Your task to perform on an android device: Open calendar and show me the third week of next month Image 0: 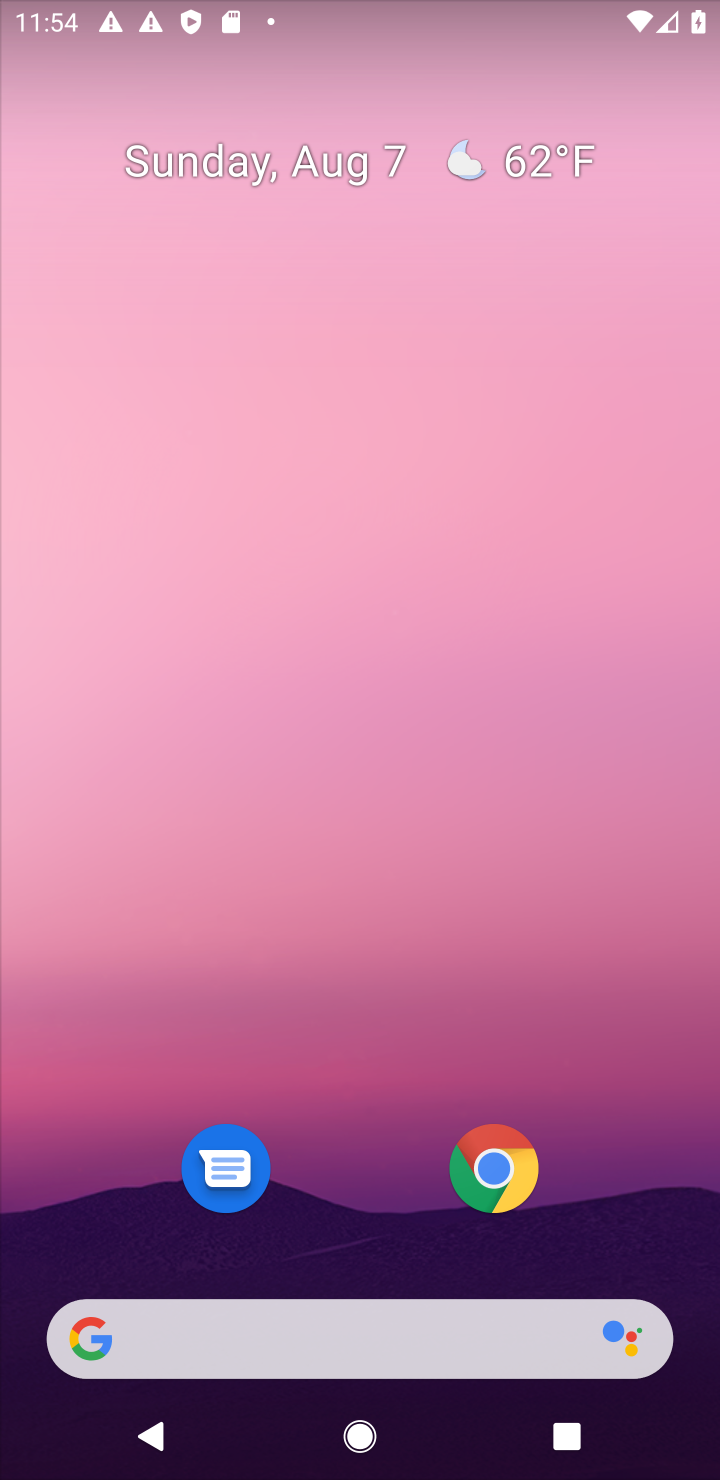
Step 0: drag from (314, 402) to (302, 157)
Your task to perform on an android device: Open calendar and show me the third week of next month Image 1: 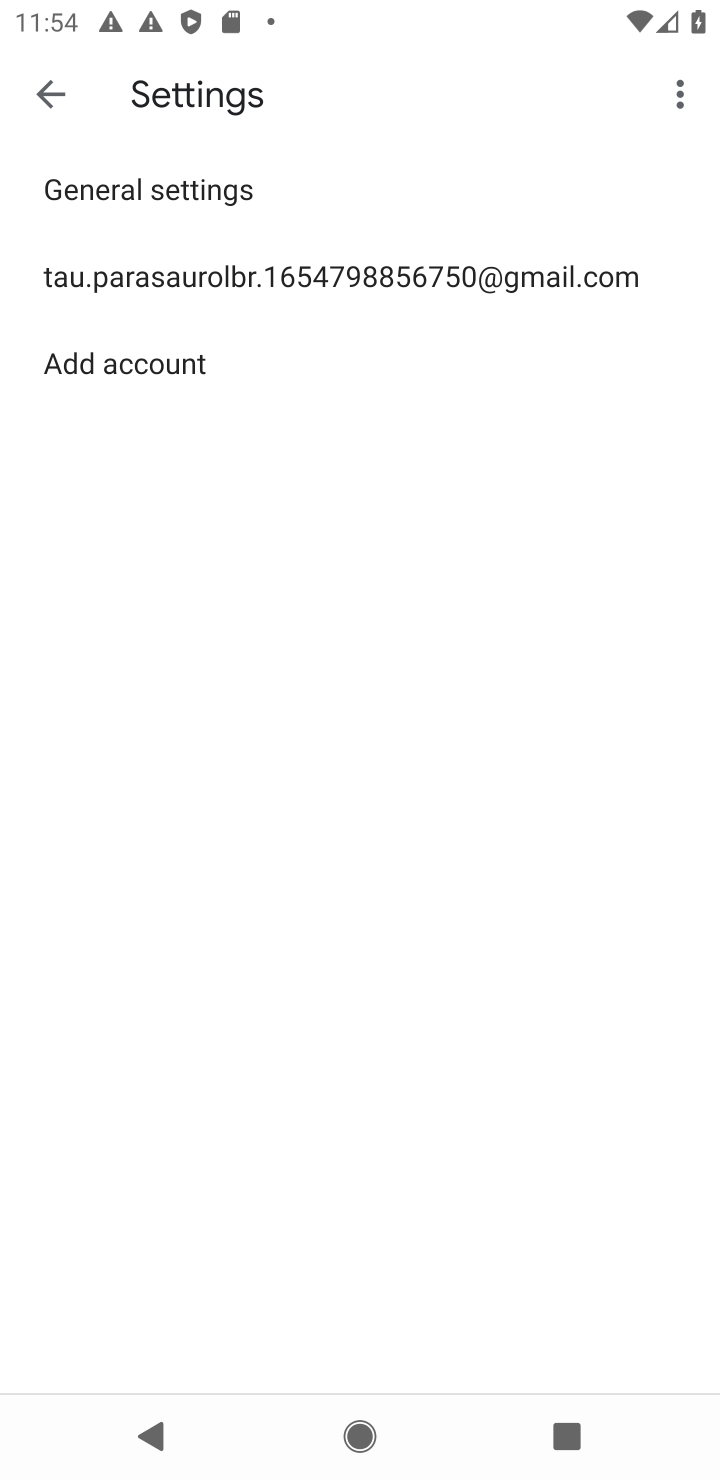
Step 1: press home button
Your task to perform on an android device: Open calendar and show me the third week of next month Image 2: 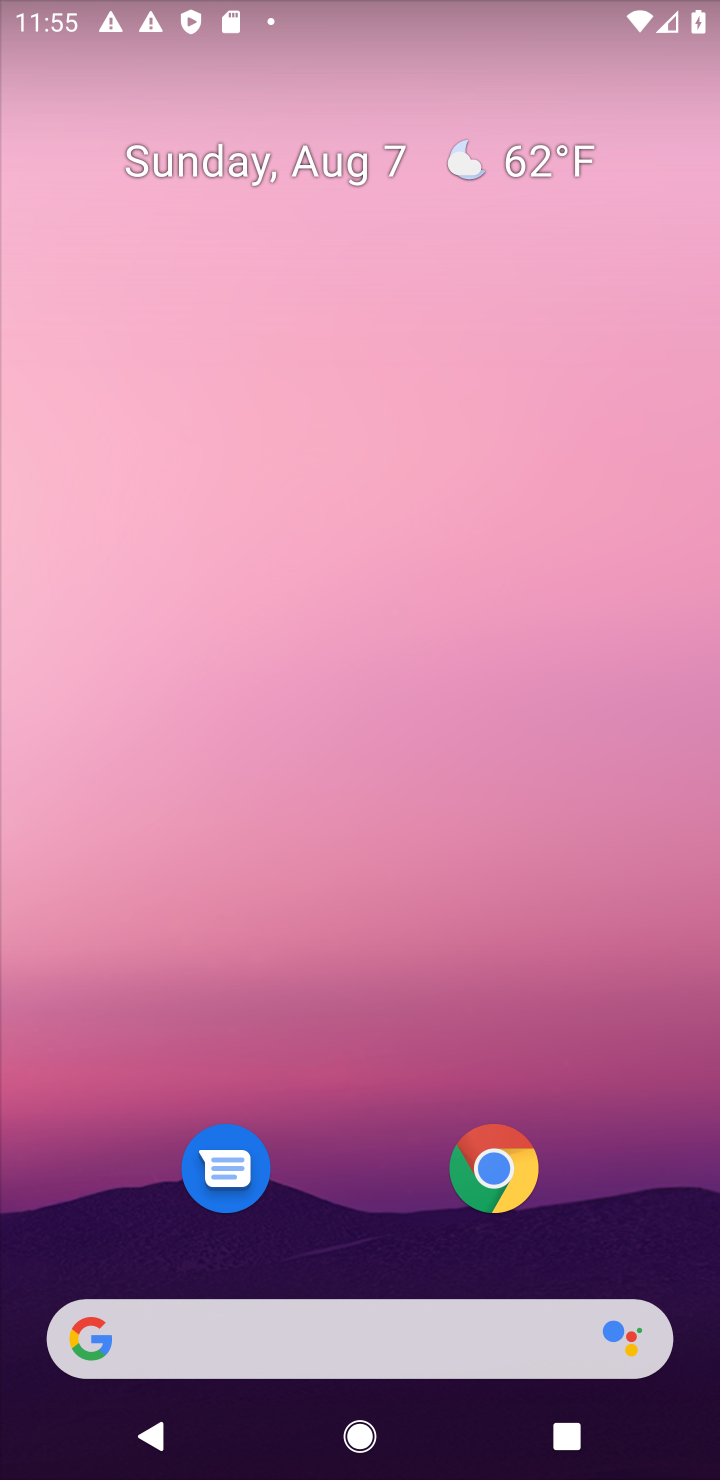
Step 2: drag from (338, 1259) to (227, 58)
Your task to perform on an android device: Open calendar and show me the third week of next month Image 3: 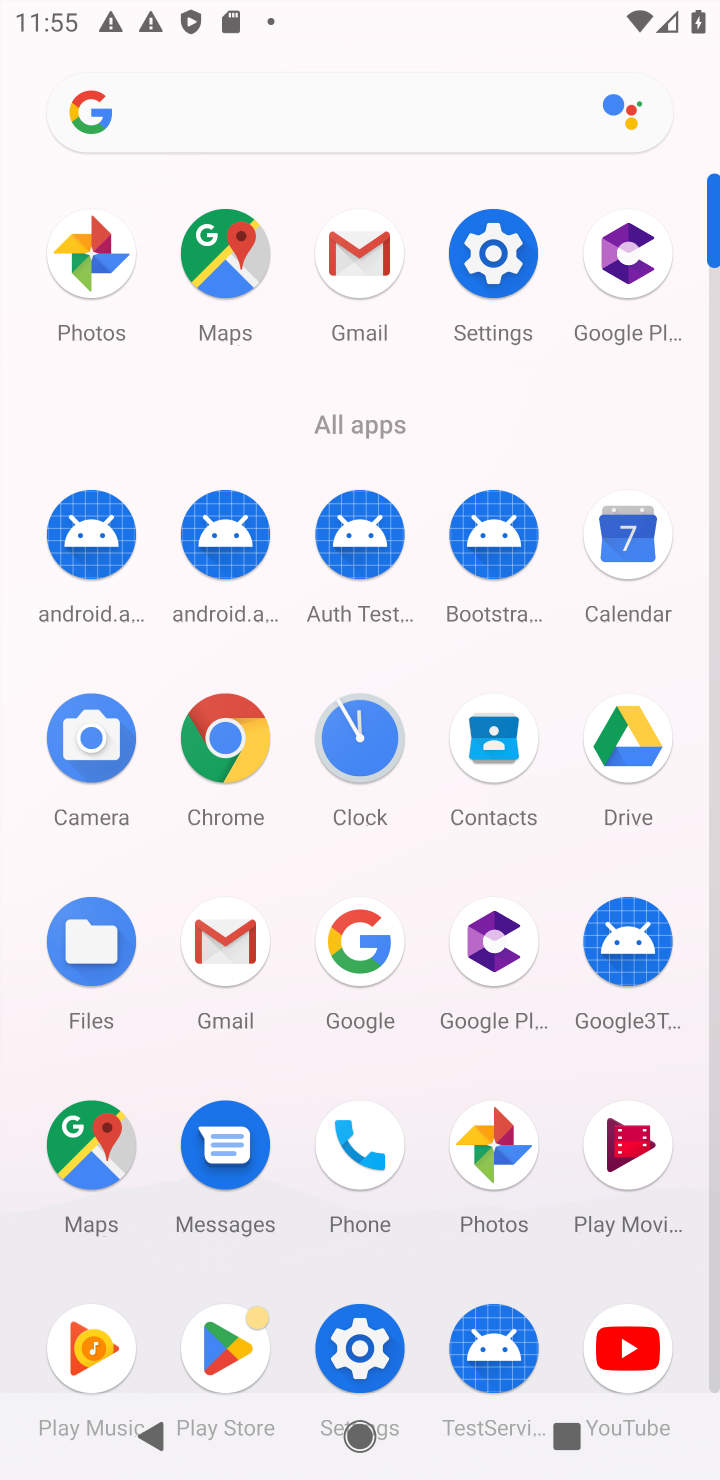
Step 3: click (617, 532)
Your task to perform on an android device: Open calendar and show me the third week of next month Image 4: 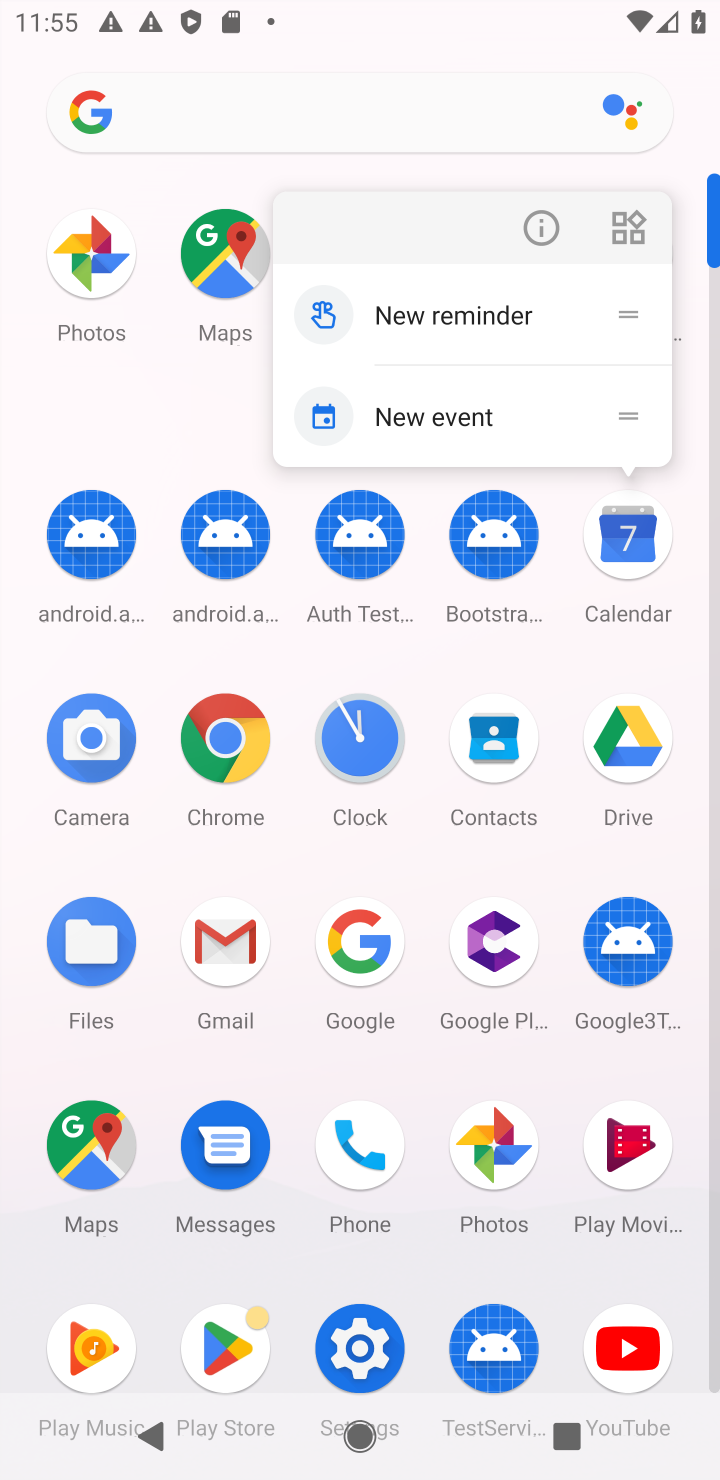
Step 4: click (630, 529)
Your task to perform on an android device: Open calendar and show me the third week of next month Image 5: 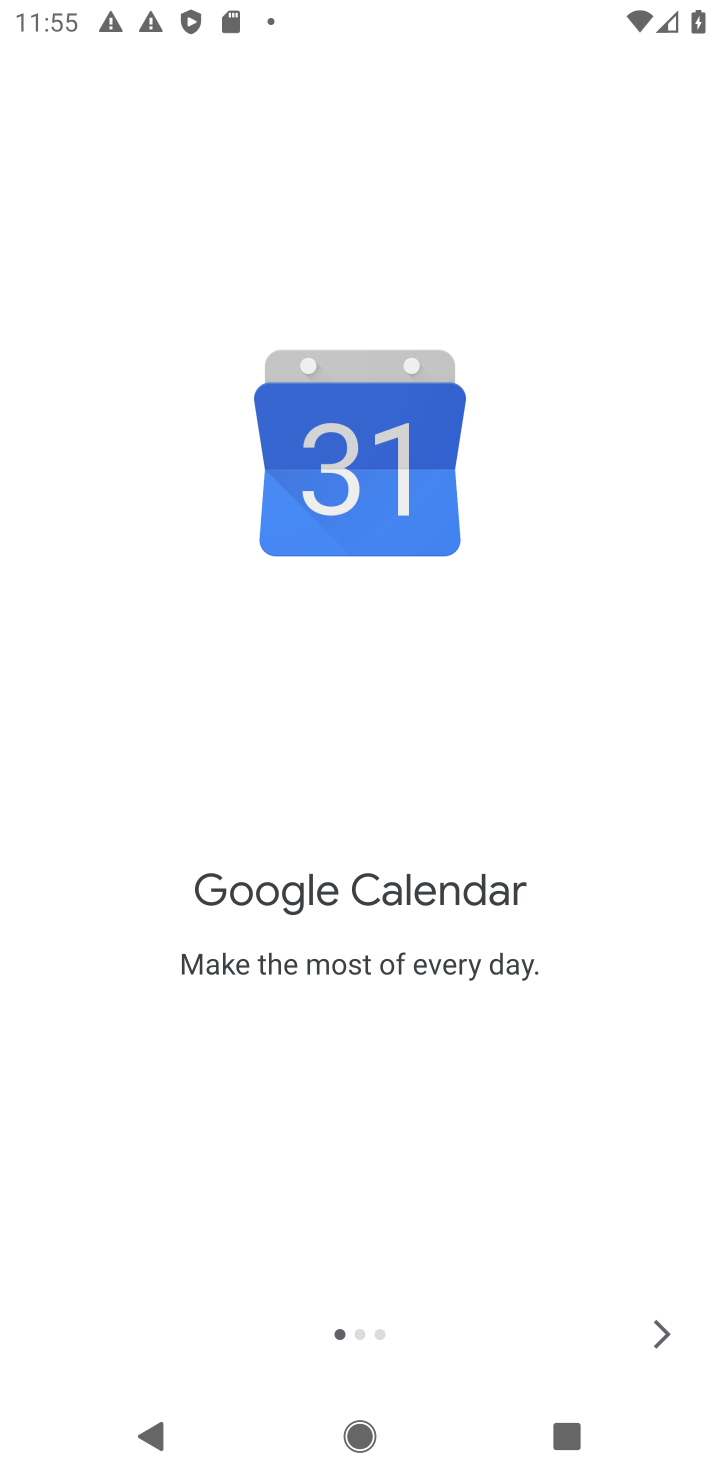
Step 5: click (640, 1327)
Your task to perform on an android device: Open calendar and show me the third week of next month Image 6: 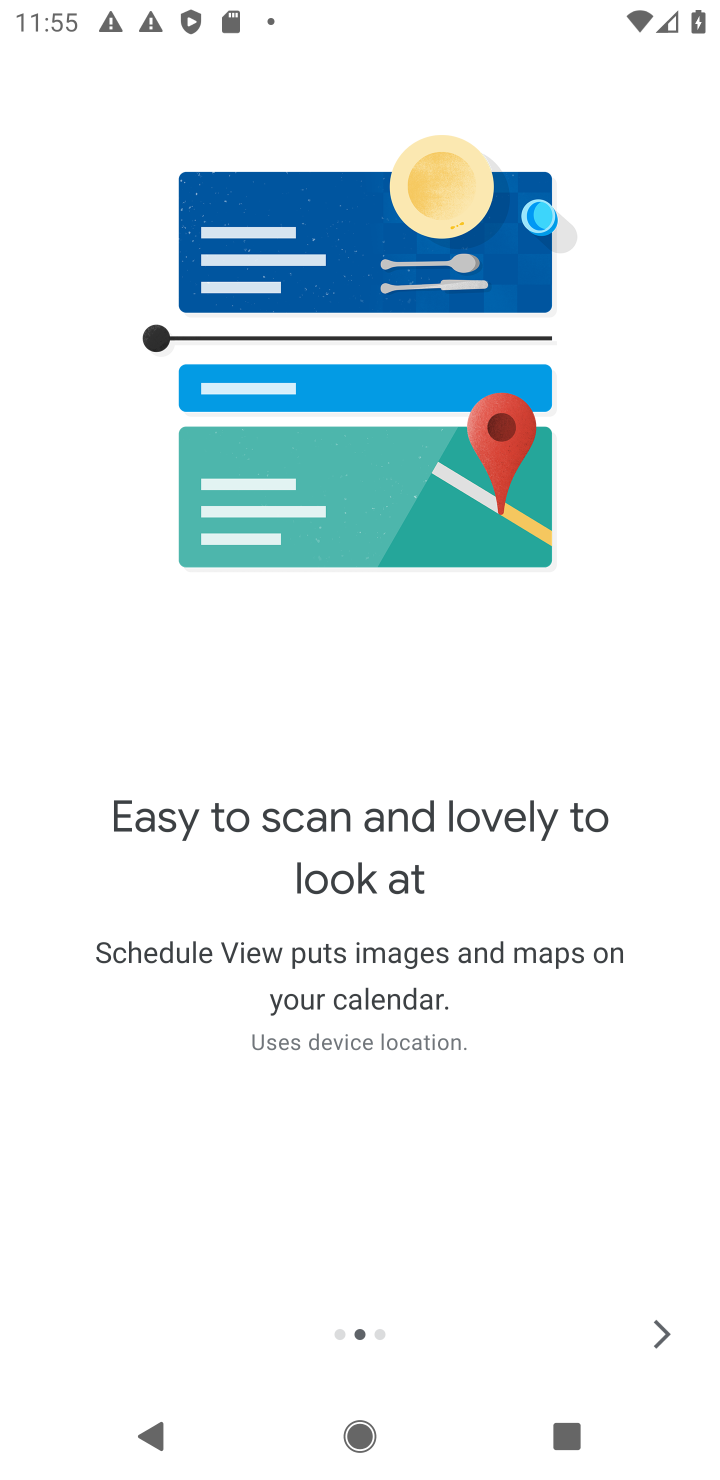
Step 6: click (640, 1327)
Your task to perform on an android device: Open calendar and show me the third week of next month Image 7: 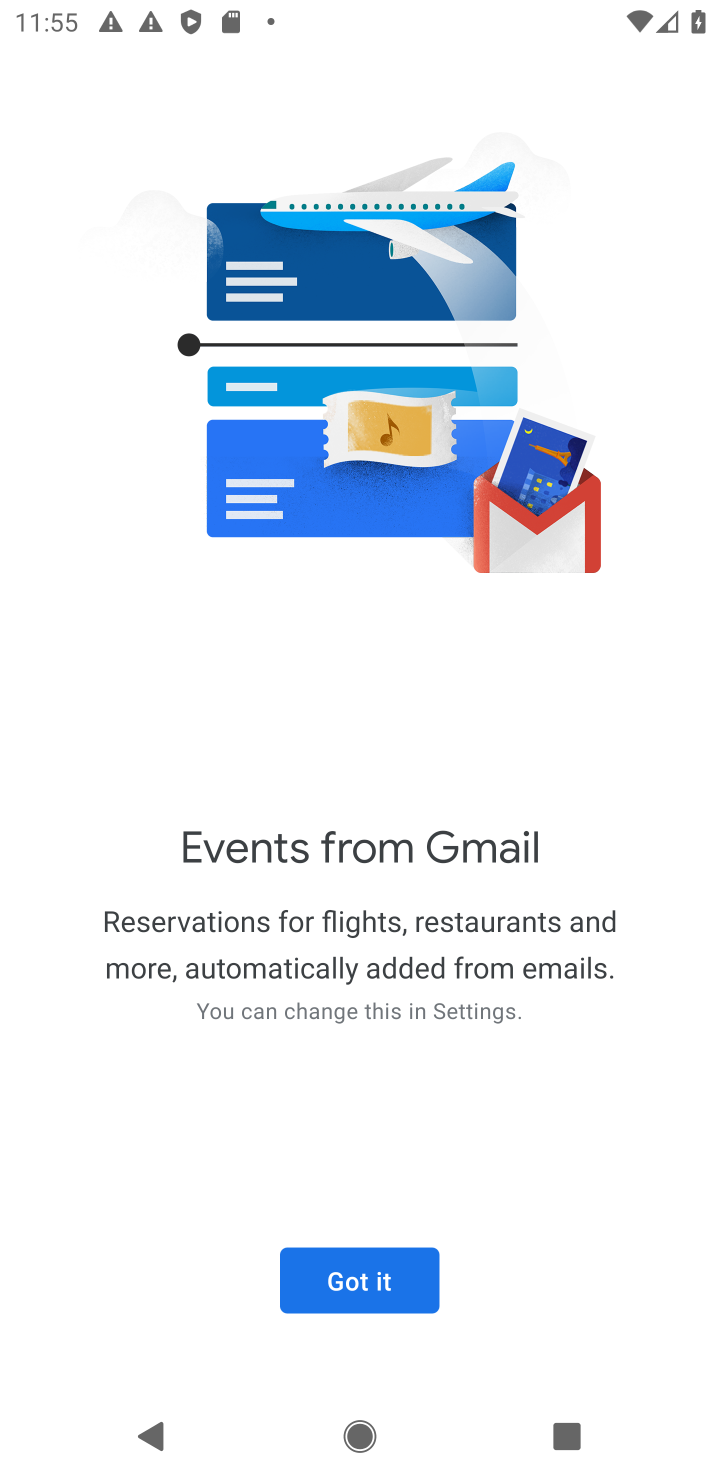
Step 7: task complete